Your task to perform on an android device: Set the phone to "Do not disturb". Image 0: 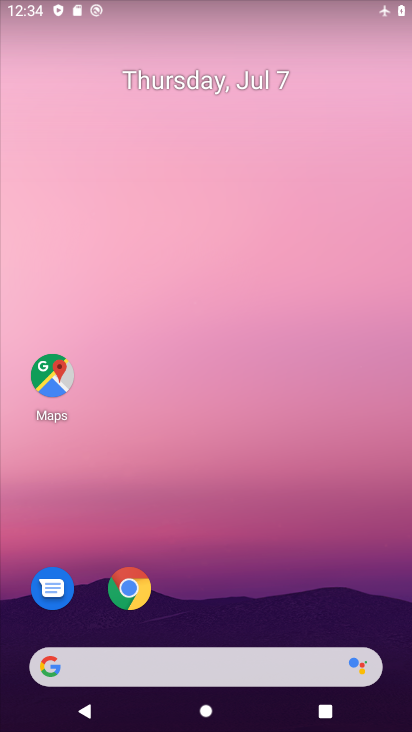
Step 0: press home button
Your task to perform on an android device: Set the phone to "Do not disturb". Image 1: 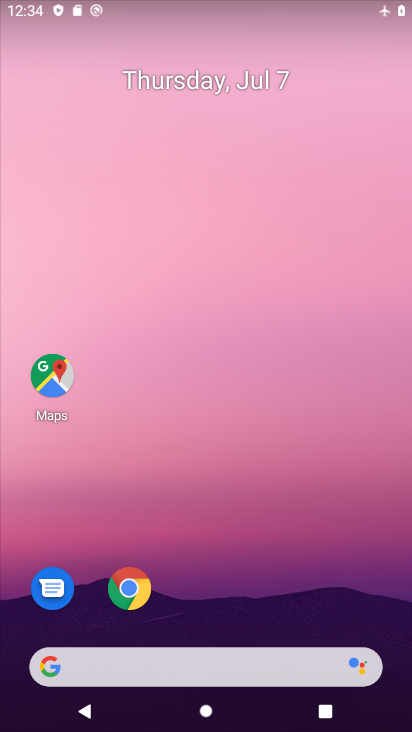
Step 1: drag from (358, 669) to (295, 66)
Your task to perform on an android device: Set the phone to "Do not disturb". Image 2: 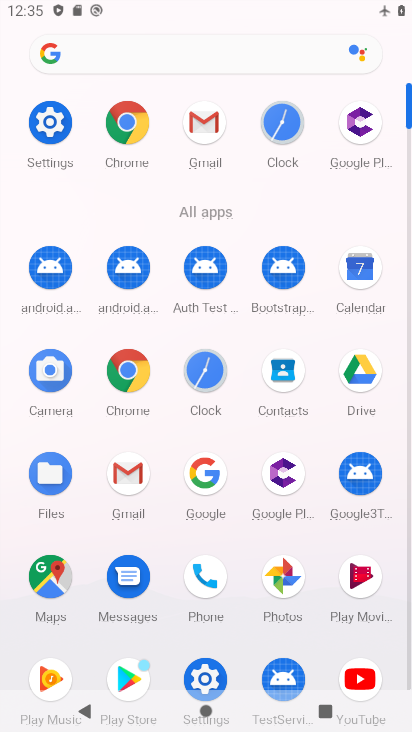
Step 2: click (204, 677)
Your task to perform on an android device: Set the phone to "Do not disturb". Image 3: 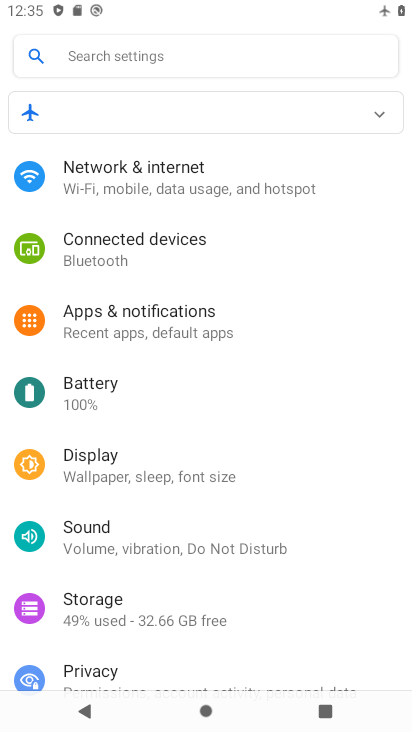
Step 3: click (159, 550)
Your task to perform on an android device: Set the phone to "Do not disturb". Image 4: 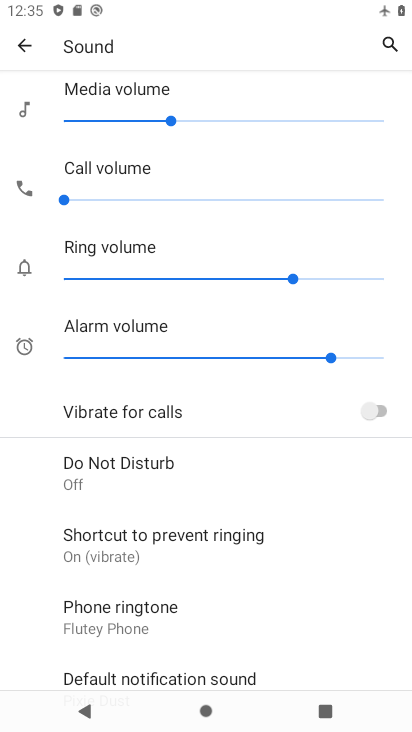
Step 4: click (174, 462)
Your task to perform on an android device: Set the phone to "Do not disturb". Image 5: 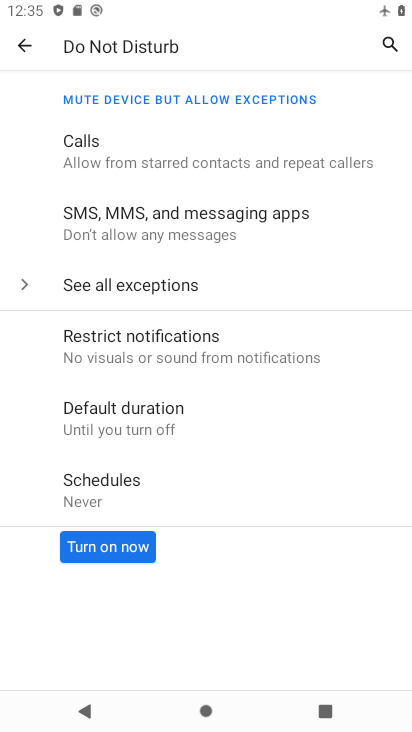
Step 5: click (117, 548)
Your task to perform on an android device: Set the phone to "Do not disturb". Image 6: 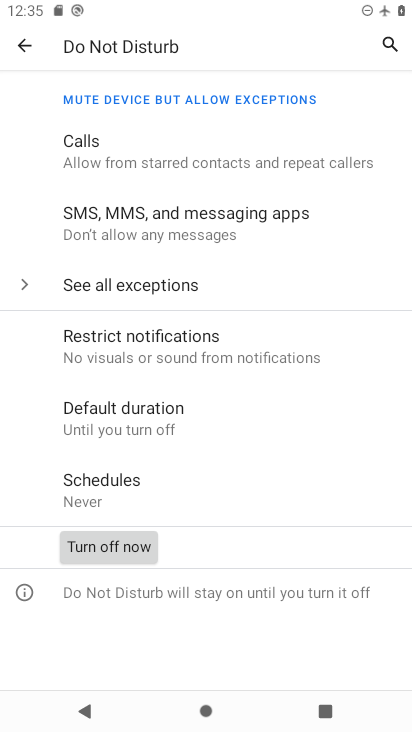
Step 6: task complete